Your task to perform on an android device: Show me productivity apps on the Play Store Image 0: 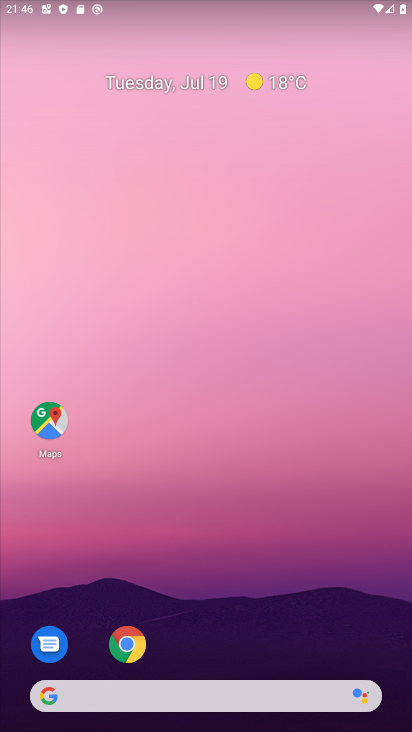
Step 0: drag from (236, 680) to (231, 186)
Your task to perform on an android device: Show me productivity apps on the Play Store Image 1: 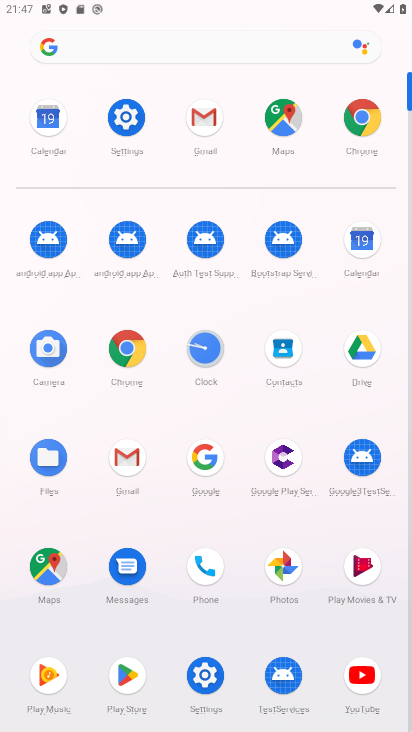
Step 1: click (131, 670)
Your task to perform on an android device: Show me productivity apps on the Play Store Image 2: 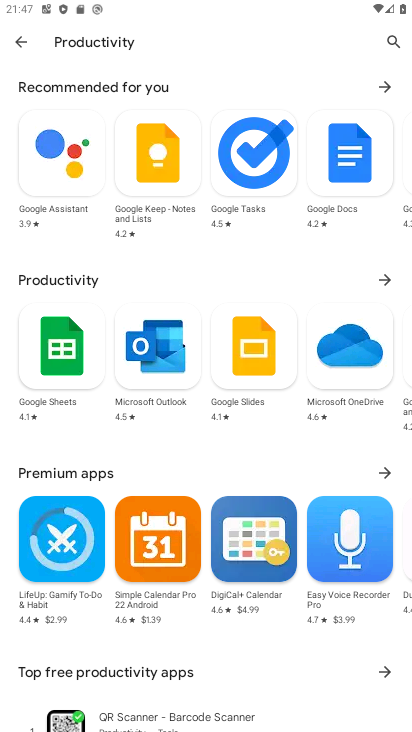
Step 2: task complete